Your task to perform on an android device: Go to sound settings Image 0: 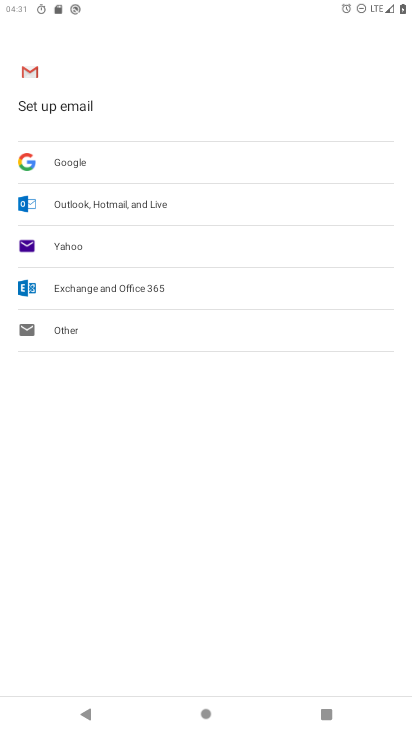
Step 0: press home button
Your task to perform on an android device: Go to sound settings Image 1: 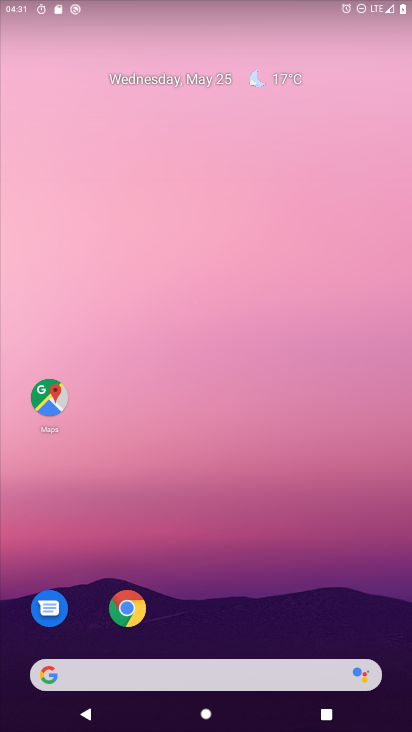
Step 1: drag from (328, 601) to (144, 87)
Your task to perform on an android device: Go to sound settings Image 2: 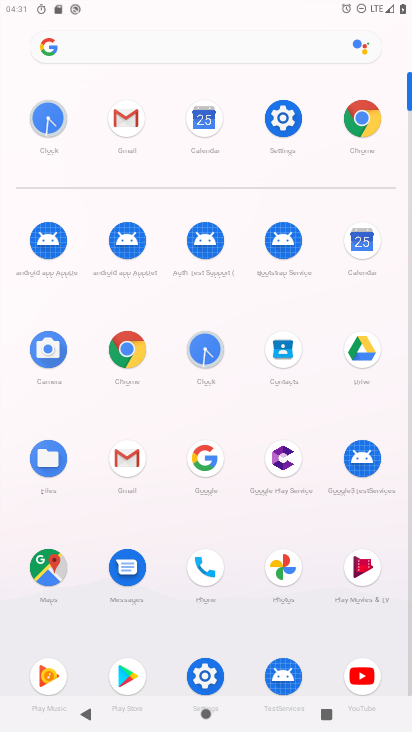
Step 2: click (283, 127)
Your task to perform on an android device: Go to sound settings Image 3: 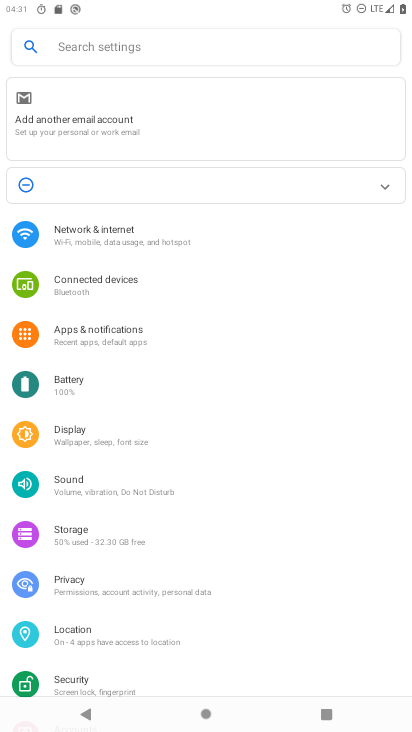
Step 3: click (63, 475)
Your task to perform on an android device: Go to sound settings Image 4: 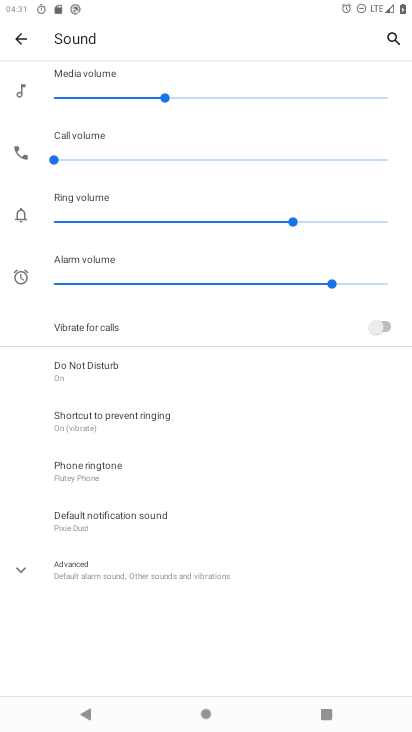
Step 4: task complete